Your task to perform on an android device: What's the weather going to be this weekend? Image 0: 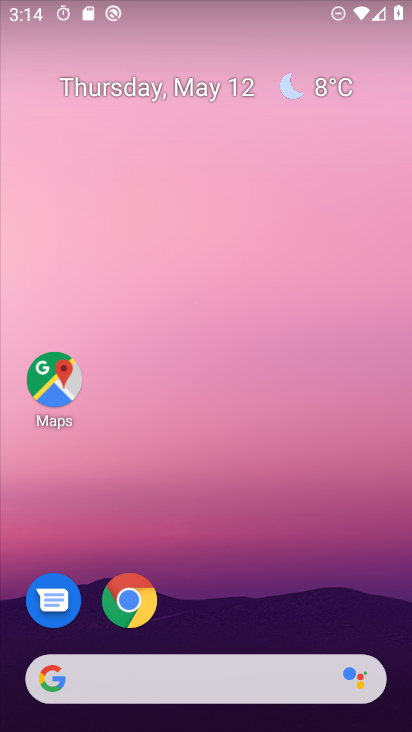
Step 0: drag from (188, 726) to (203, 171)
Your task to perform on an android device: What's the weather going to be this weekend? Image 1: 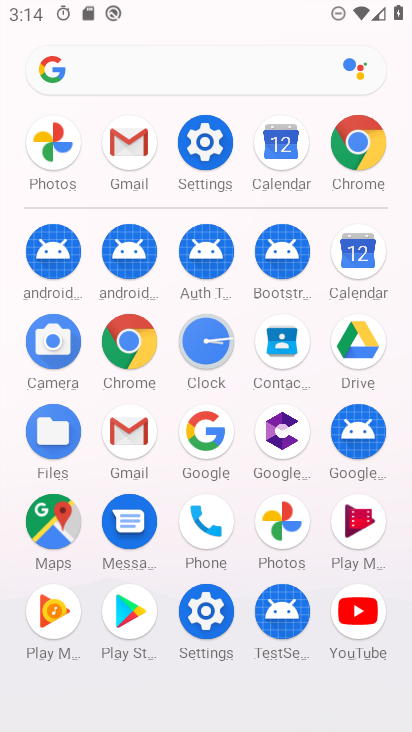
Step 1: click (201, 426)
Your task to perform on an android device: What's the weather going to be this weekend? Image 2: 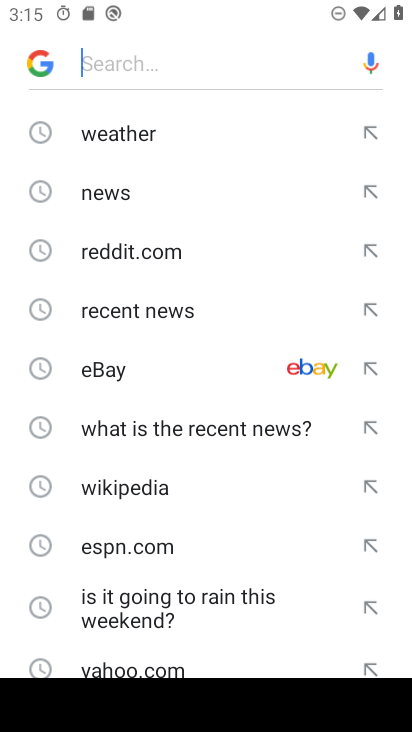
Step 2: click (115, 132)
Your task to perform on an android device: What's the weather going to be this weekend? Image 3: 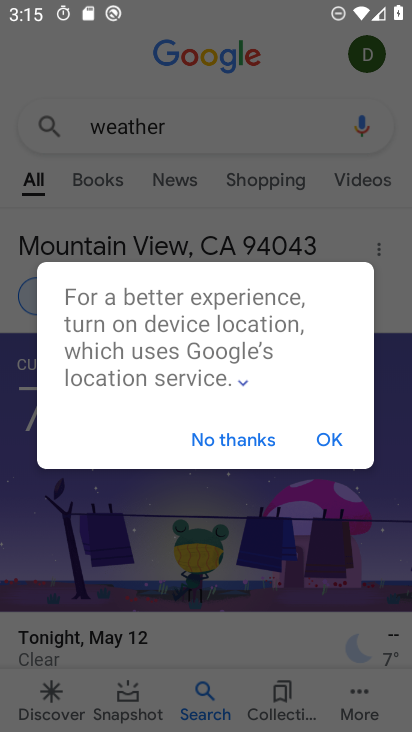
Step 3: click (333, 434)
Your task to perform on an android device: What's the weather going to be this weekend? Image 4: 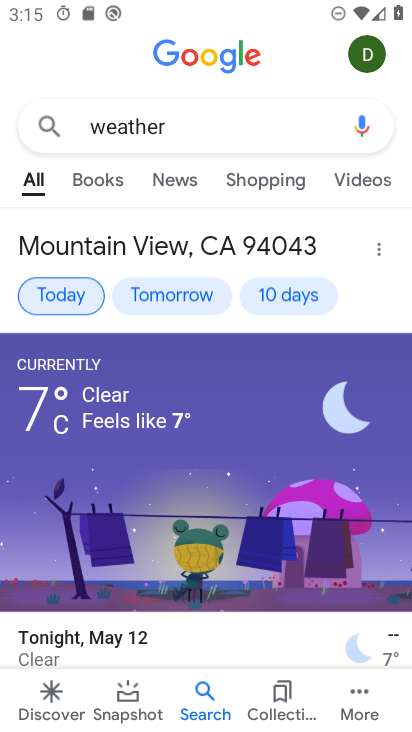
Step 4: click (281, 292)
Your task to perform on an android device: What's the weather going to be this weekend? Image 5: 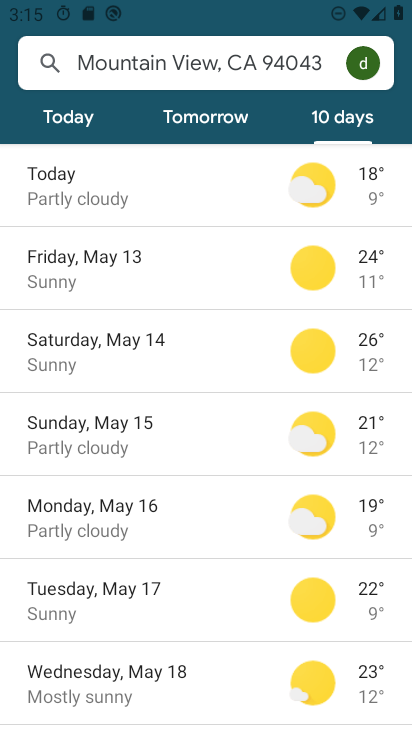
Step 5: click (106, 342)
Your task to perform on an android device: What's the weather going to be this weekend? Image 6: 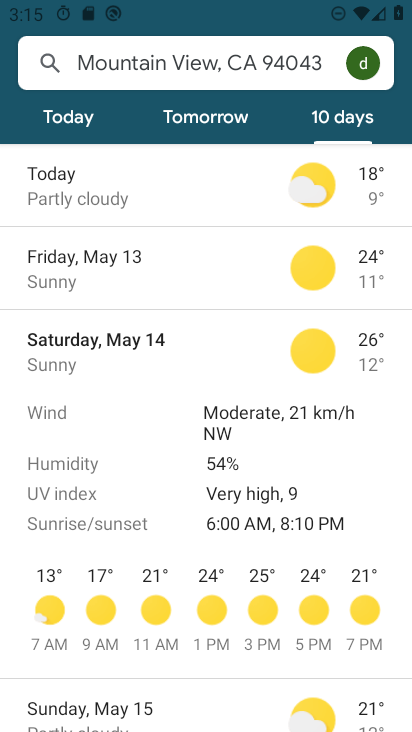
Step 6: task complete